Your task to perform on an android device: Open accessibility settings Image 0: 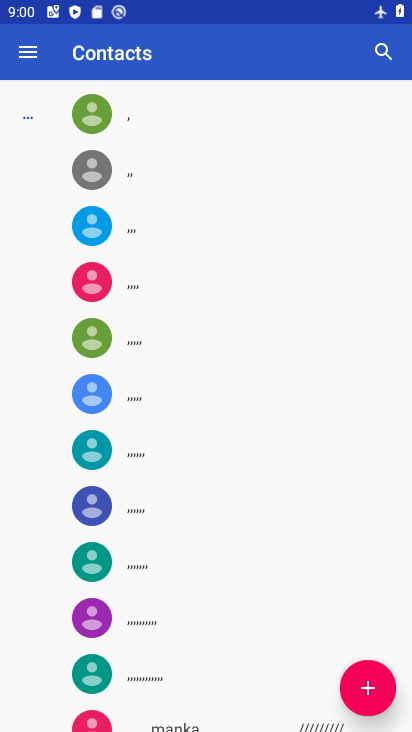
Step 0: press home button
Your task to perform on an android device: Open accessibility settings Image 1: 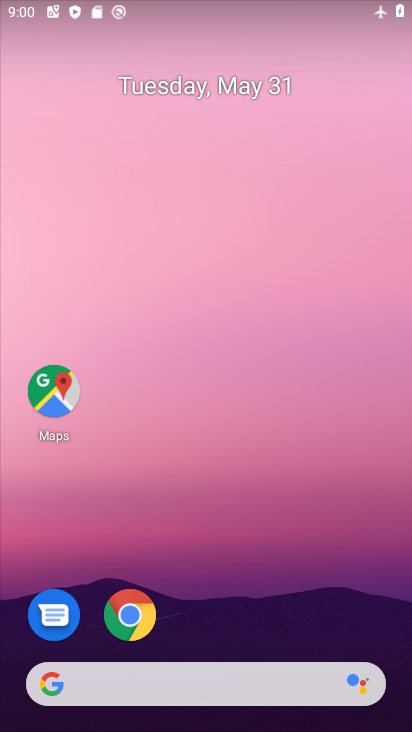
Step 1: drag from (303, 619) to (270, 261)
Your task to perform on an android device: Open accessibility settings Image 2: 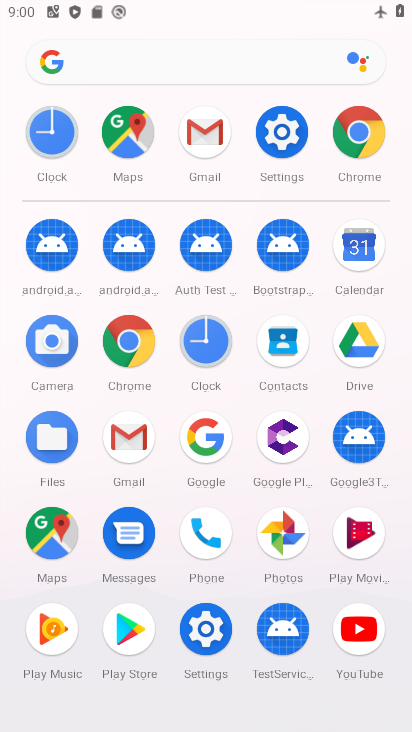
Step 2: click (208, 629)
Your task to perform on an android device: Open accessibility settings Image 3: 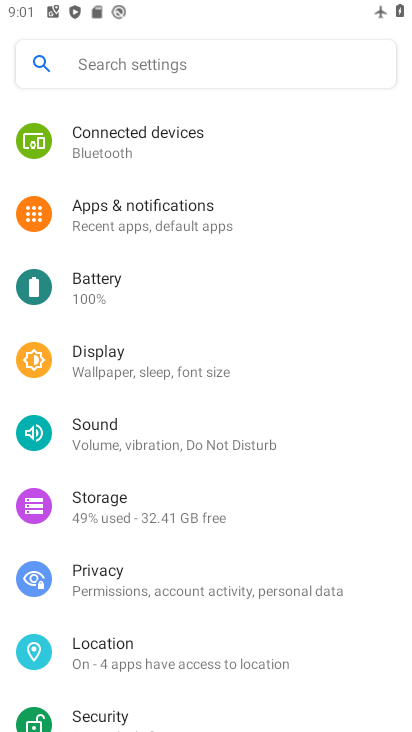
Step 3: drag from (162, 635) to (200, 265)
Your task to perform on an android device: Open accessibility settings Image 4: 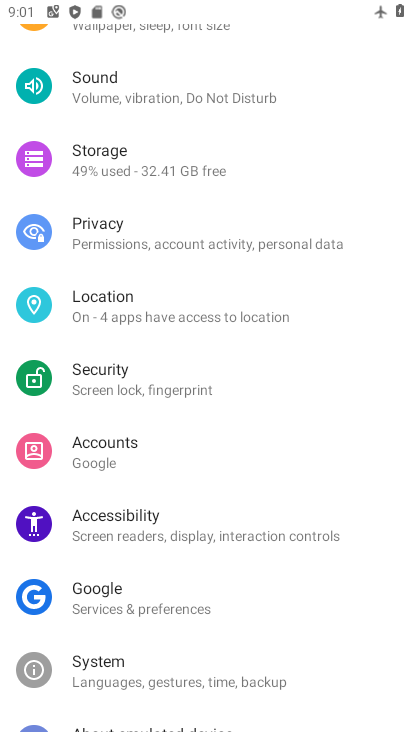
Step 4: click (101, 528)
Your task to perform on an android device: Open accessibility settings Image 5: 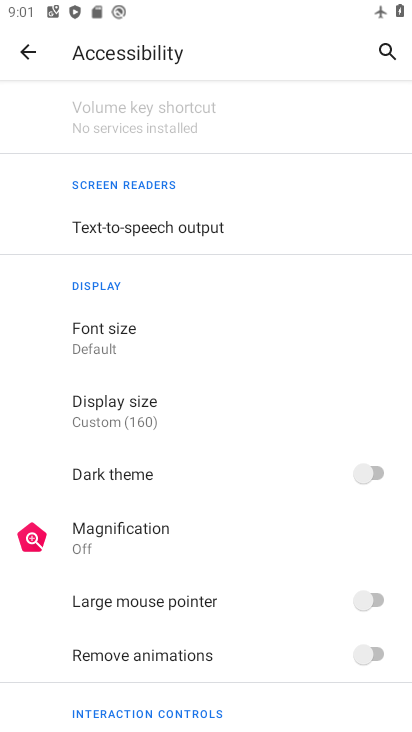
Step 5: task complete